Your task to perform on an android device: Search for vegetarian restaurants on Maps Image 0: 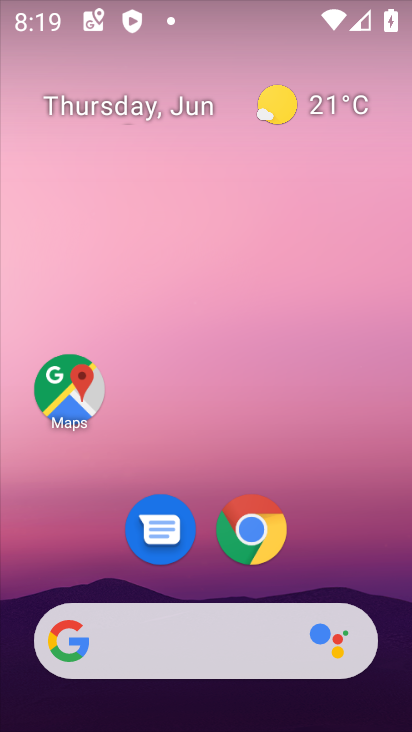
Step 0: click (65, 398)
Your task to perform on an android device: Search for vegetarian restaurants on Maps Image 1: 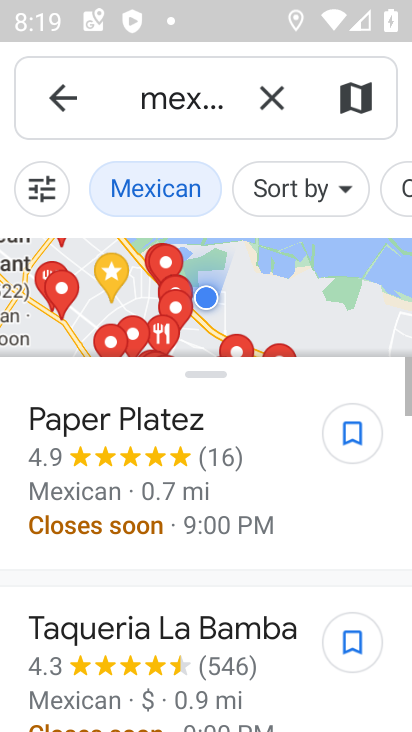
Step 1: click (273, 98)
Your task to perform on an android device: Search for vegetarian restaurants on Maps Image 2: 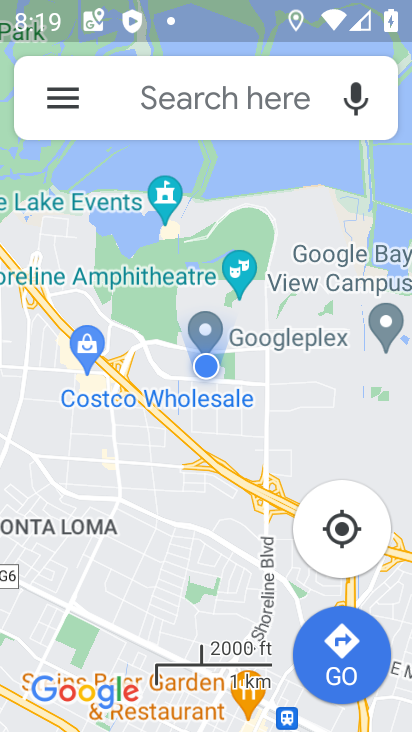
Step 2: click (199, 99)
Your task to perform on an android device: Search for vegetarian restaurants on Maps Image 3: 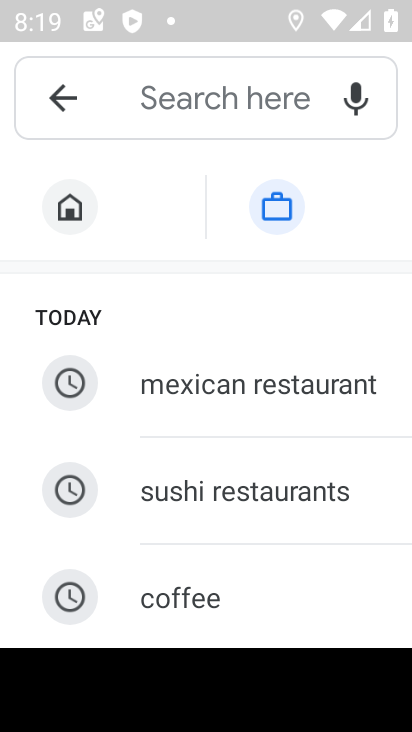
Step 3: type "vegetarian"
Your task to perform on an android device: Search for vegetarian restaurants on Maps Image 4: 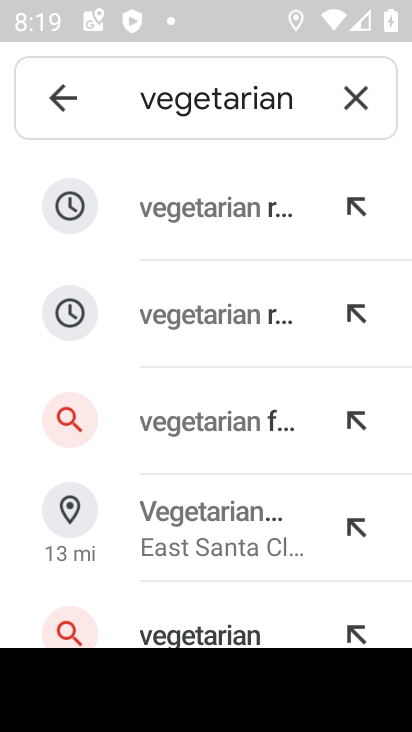
Step 4: click (227, 208)
Your task to perform on an android device: Search for vegetarian restaurants on Maps Image 5: 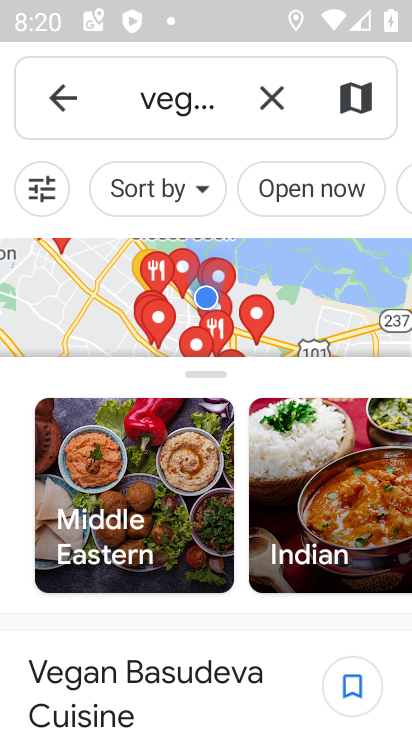
Step 5: task complete